Your task to perform on an android device: Go to settings Image 0: 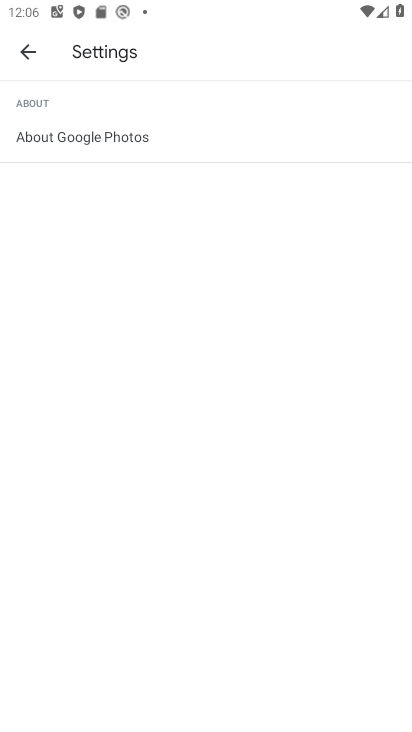
Step 0: drag from (349, 628) to (347, 247)
Your task to perform on an android device: Go to settings Image 1: 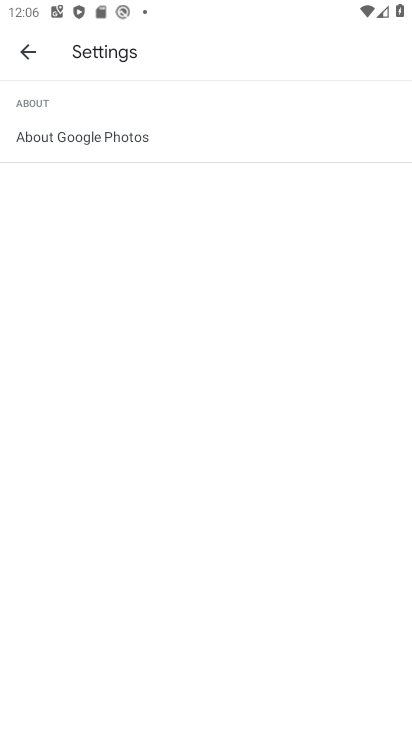
Step 1: press home button
Your task to perform on an android device: Go to settings Image 2: 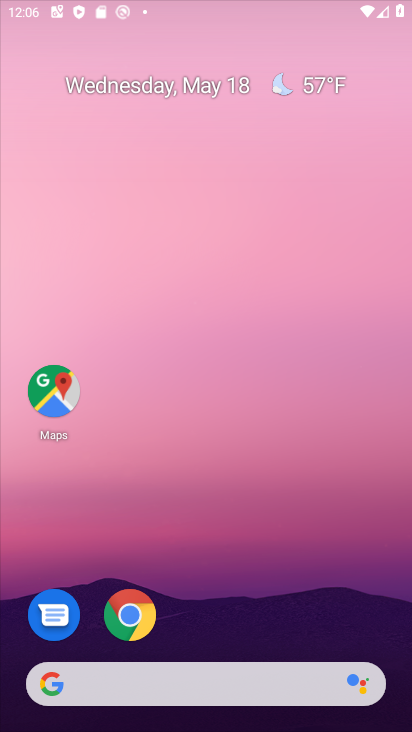
Step 2: drag from (347, 624) to (231, 64)
Your task to perform on an android device: Go to settings Image 3: 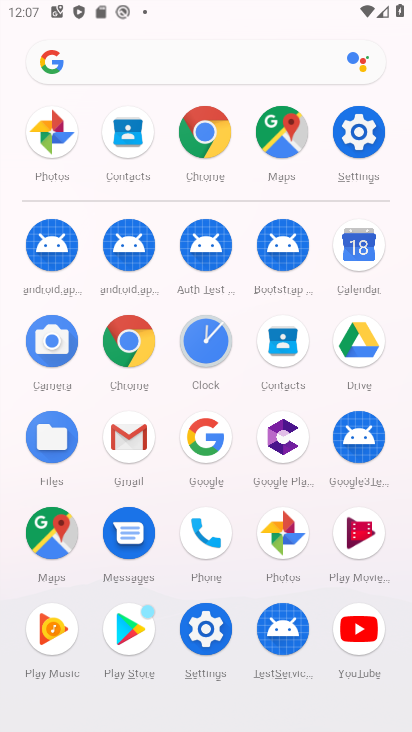
Step 3: click (213, 630)
Your task to perform on an android device: Go to settings Image 4: 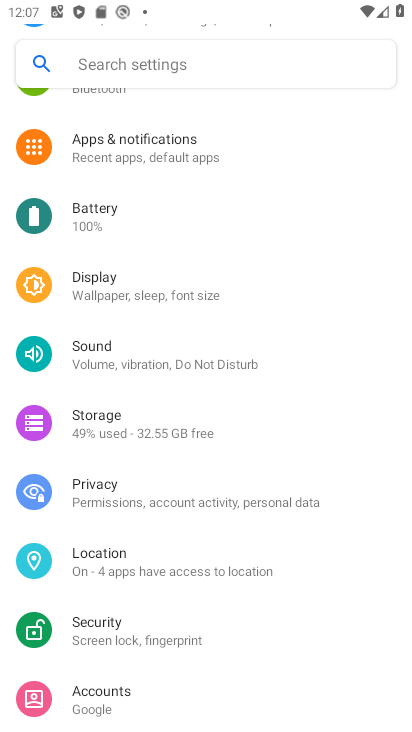
Step 4: task complete